Your task to perform on an android device: change notifications settings Image 0: 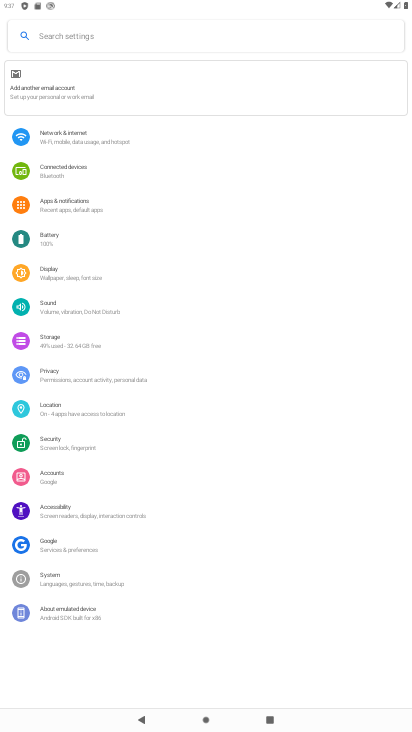
Step 0: click (71, 199)
Your task to perform on an android device: change notifications settings Image 1: 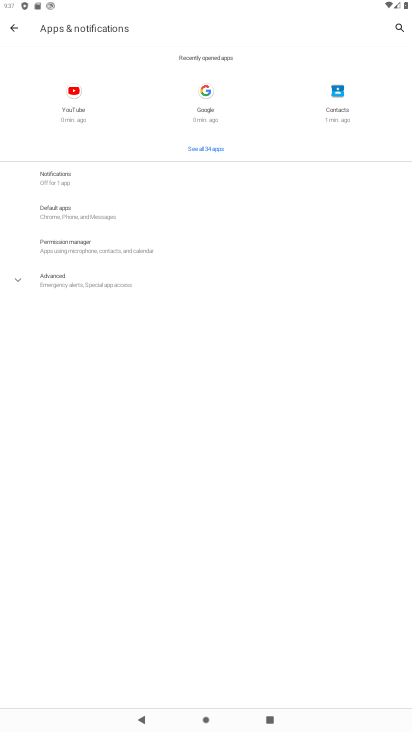
Step 1: click (65, 183)
Your task to perform on an android device: change notifications settings Image 2: 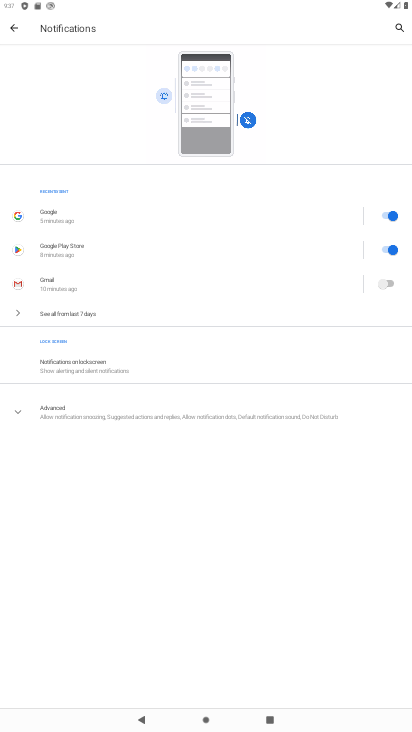
Step 2: click (88, 311)
Your task to perform on an android device: change notifications settings Image 3: 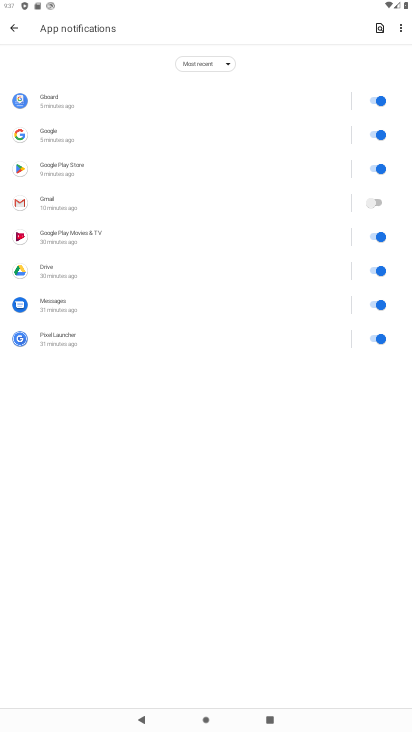
Step 3: click (365, 98)
Your task to perform on an android device: change notifications settings Image 4: 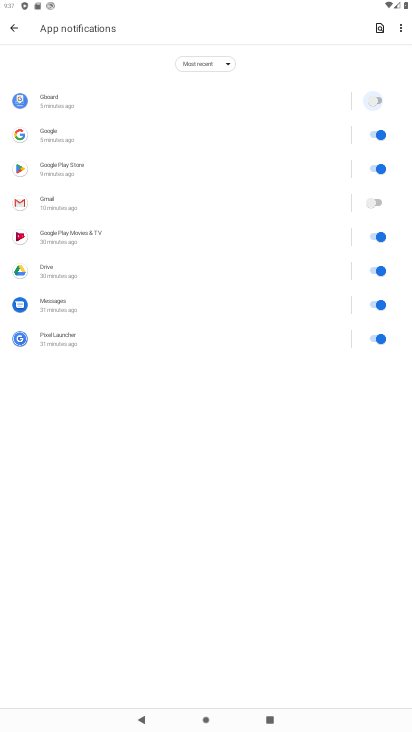
Step 4: click (363, 128)
Your task to perform on an android device: change notifications settings Image 5: 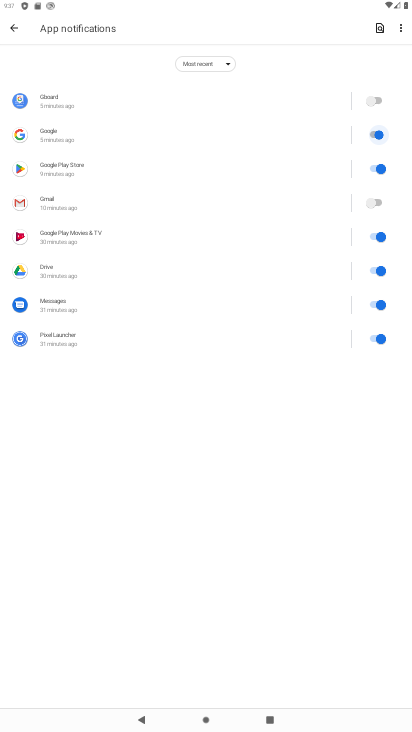
Step 5: click (370, 161)
Your task to perform on an android device: change notifications settings Image 6: 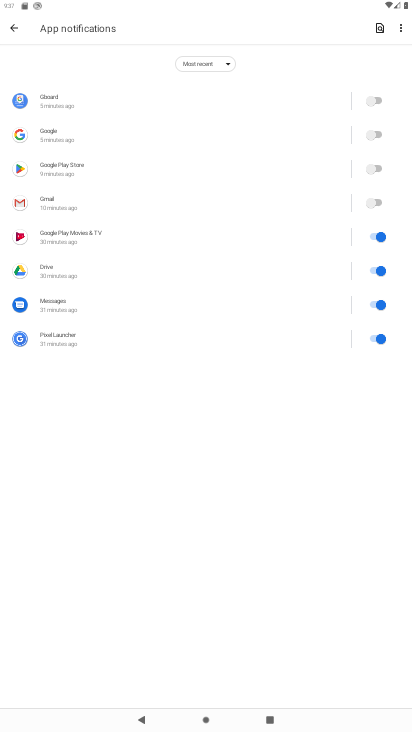
Step 6: click (367, 237)
Your task to perform on an android device: change notifications settings Image 7: 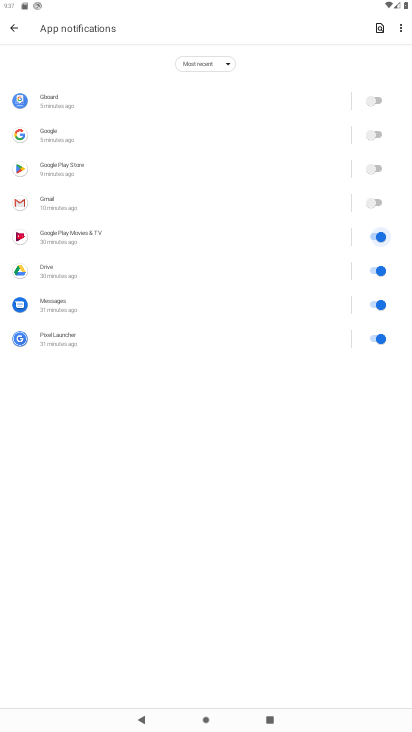
Step 7: click (363, 260)
Your task to perform on an android device: change notifications settings Image 8: 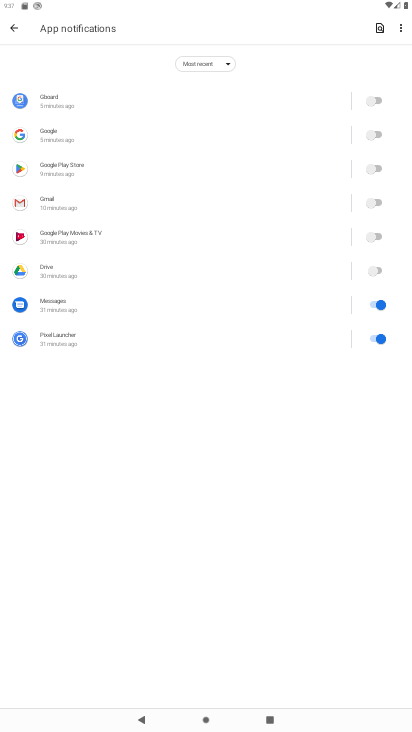
Step 8: click (363, 306)
Your task to perform on an android device: change notifications settings Image 9: 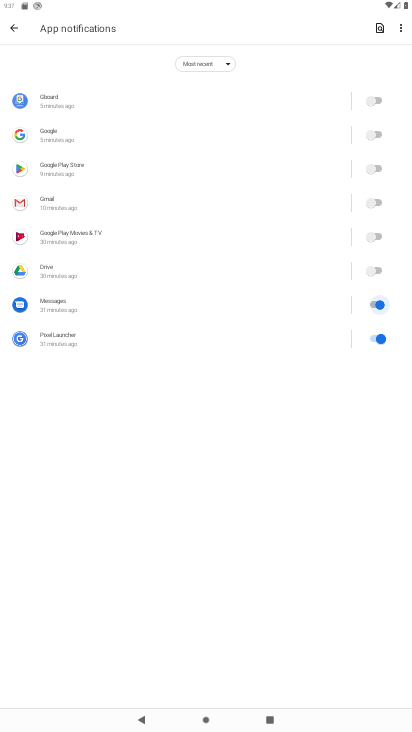
Step 9: click (367, 335)
Your task to perform on an android device: change notifications settings Image 10: 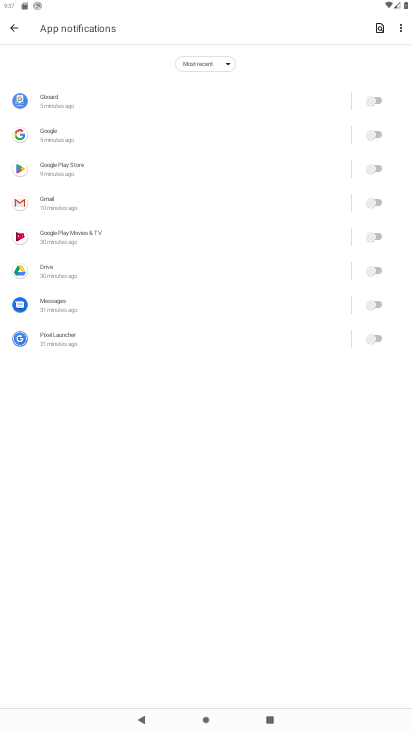
Step 10: task complete